Your task to perform on an android device: move a message to another label in the gmail app Image 0: 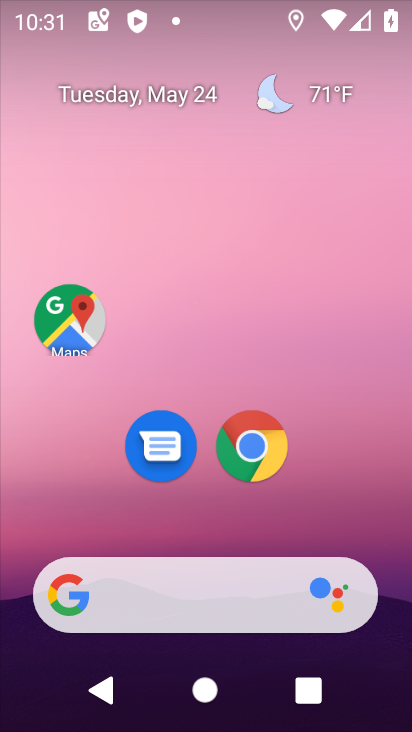
Step 0: drag from (340, 518) to (230, 74)
Your task to perform on an android device: move a message to another label in the gmail app Image 1: 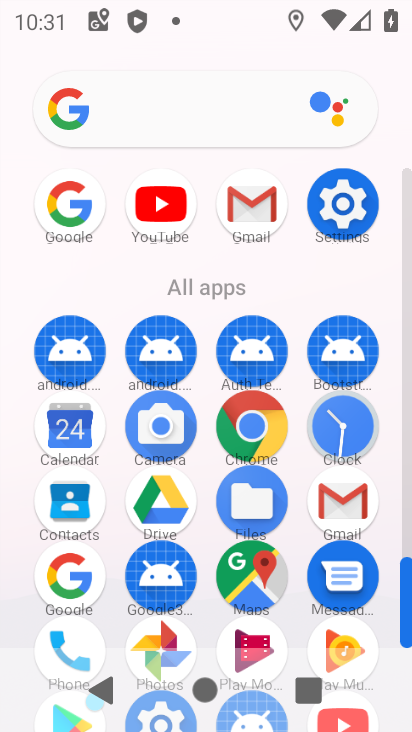
Step 1: click (253, 206)
Your task to perform on an android device: move a message to another label in the gmail app Image 2: 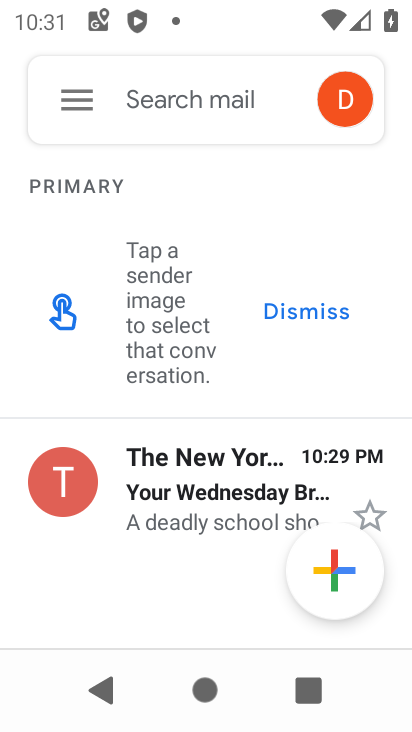
Step 2: click (192, 492)
Your task to perform on an android device: move a message to another label in the gmail app Image 3: 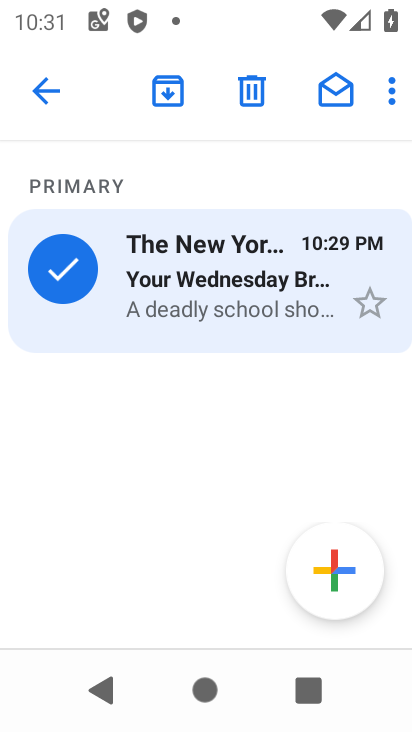
Step 3: click (397, 84)
Your task to perform on an android device: move a message to another label in the gmail app Image 4: 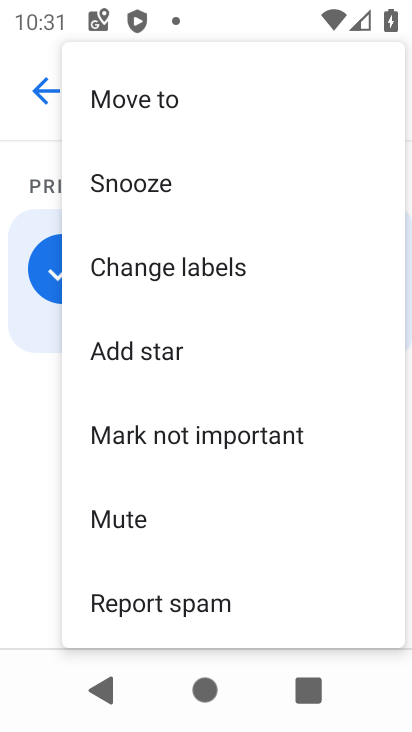
Step 4: click (215, 275)
Your task to perform on an android device: move a message to another label in the gmail app Image 5: 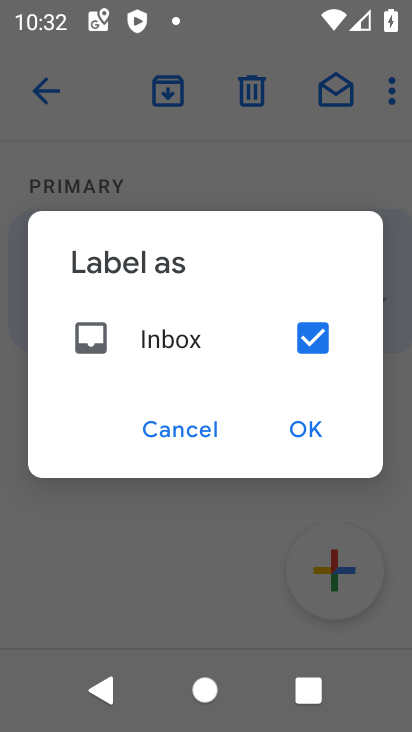
Step 5: click (323, 349)
Your task to perform on an android device: move a message to another label in the gmail app Image 6: 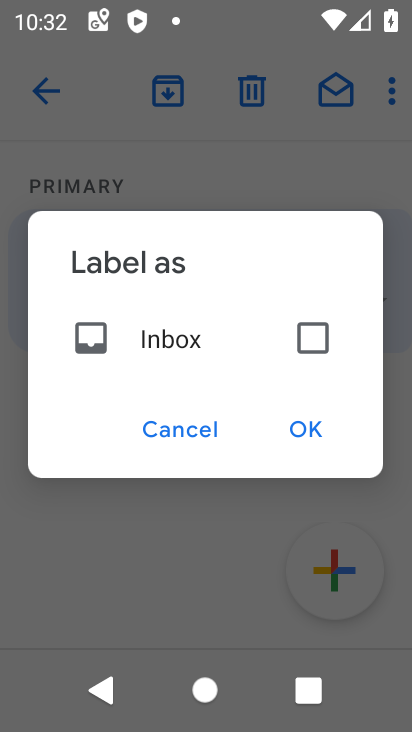
Step 6: click (307, 422)
Your task to perform on an android device: move a message to another label in the gmail app Image 7: 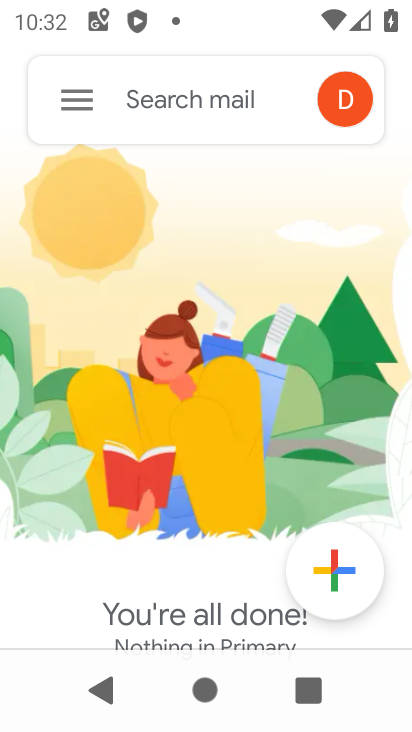
Step 7: task complete